Your task to perform on an android device: snooze an email in the gmail app Image 0: 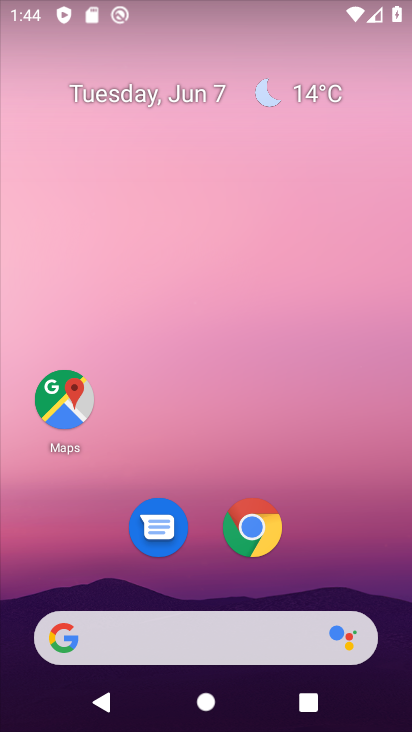
Step 0: drag from (384, 592) to (258, 29)
Your task to perform on an android device: snooze an email in the gmail app Image 1: 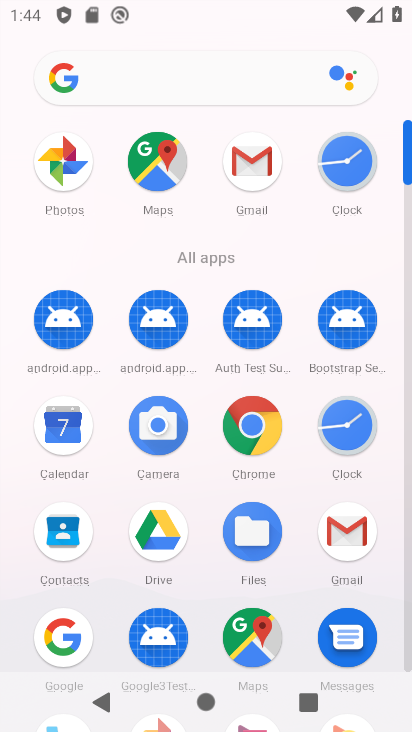
Step 1: click (261, 161)
Your task to perform on an android device: snooze an email in the gmail app Image 2: 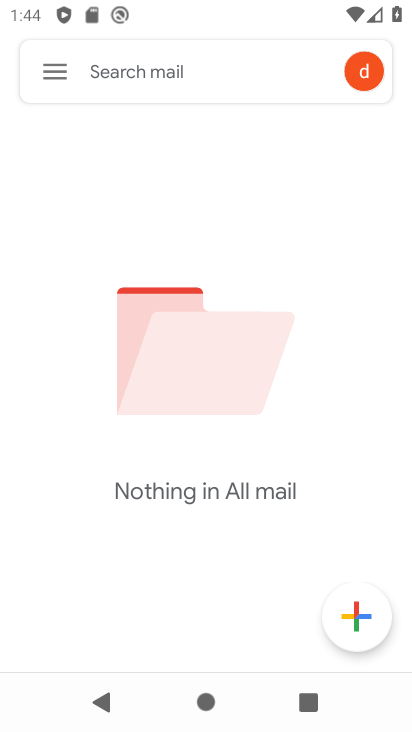
Step 2: click (57, 88)
Your task to perform on an android device: snooze an email in the gmail app Image 3: 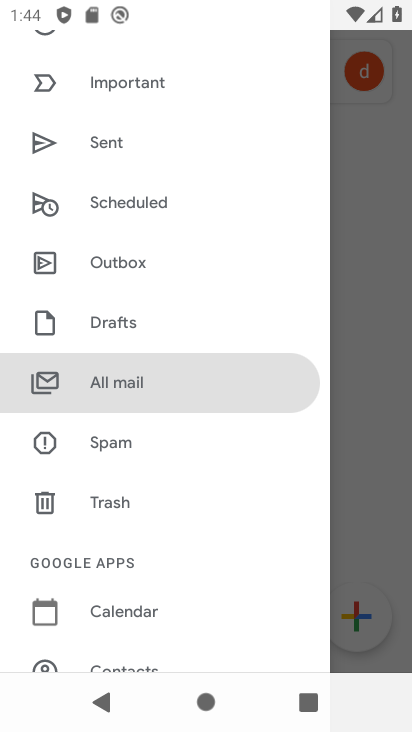
Step 3: drag from (160, 145) to (228, 698)
Your task to perform on an android device: snooze an email in the gmail app Image 4: 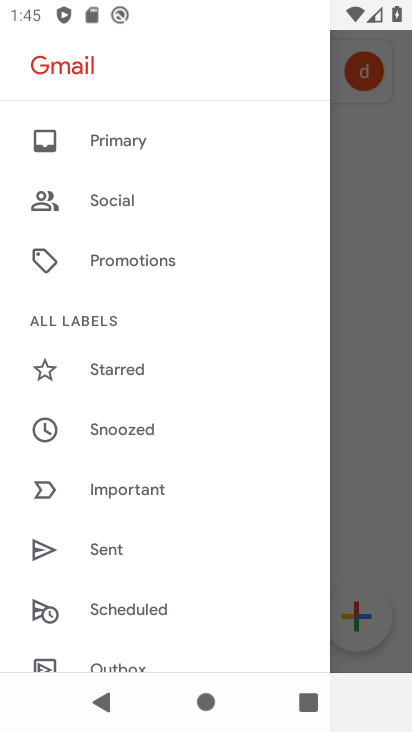
Step 4: click (358, 541)
Your task to perform on an android device: snooze an email in the gmail app Image 5: 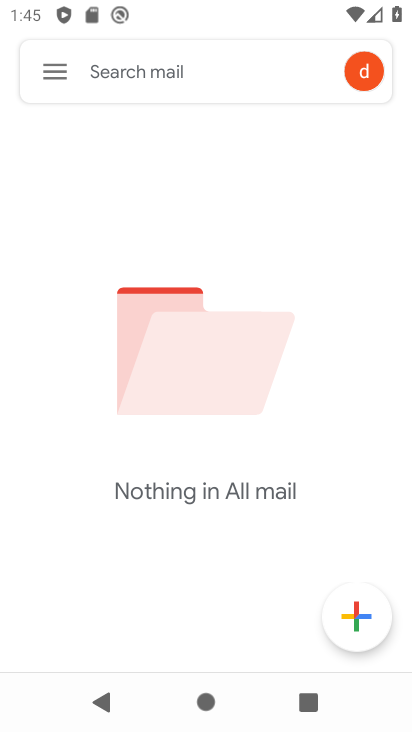
Step 5: task complete